Your task to perform on an android device: Open Wikipedia Image 0: 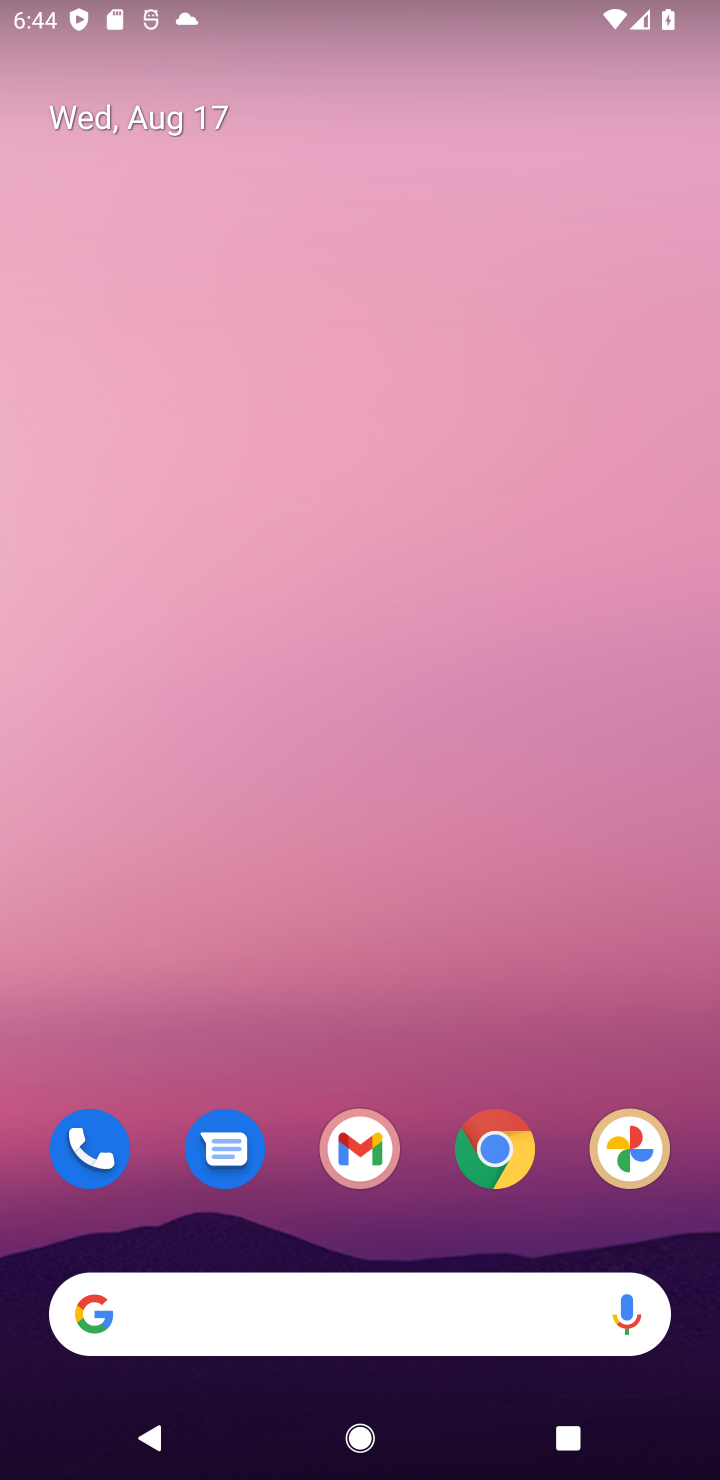
Step 0: click (497, 1153)
Your task to perform on an android device: Open Wikipedia Image 1: 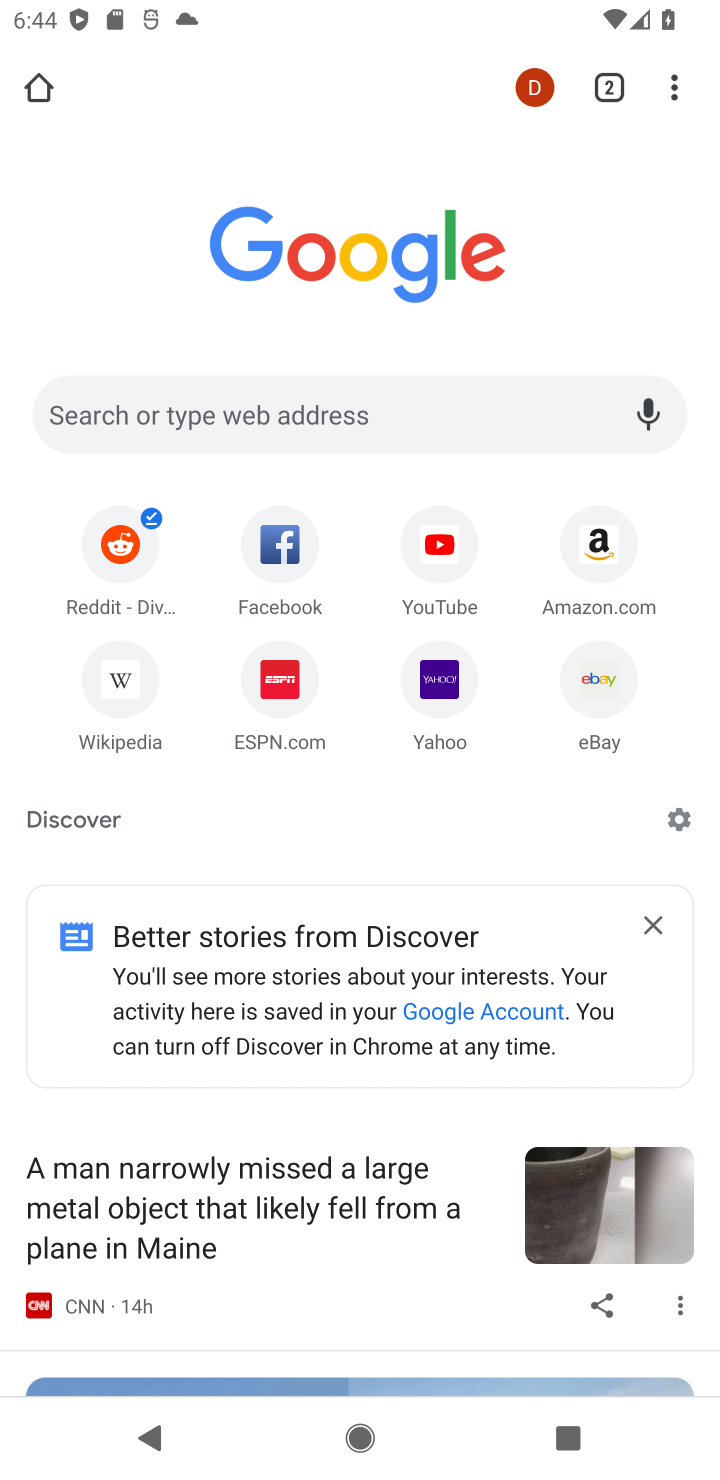
Step 1: click (118, 688)
Your task to perform on an android device: Open Wikipedia Image 2: 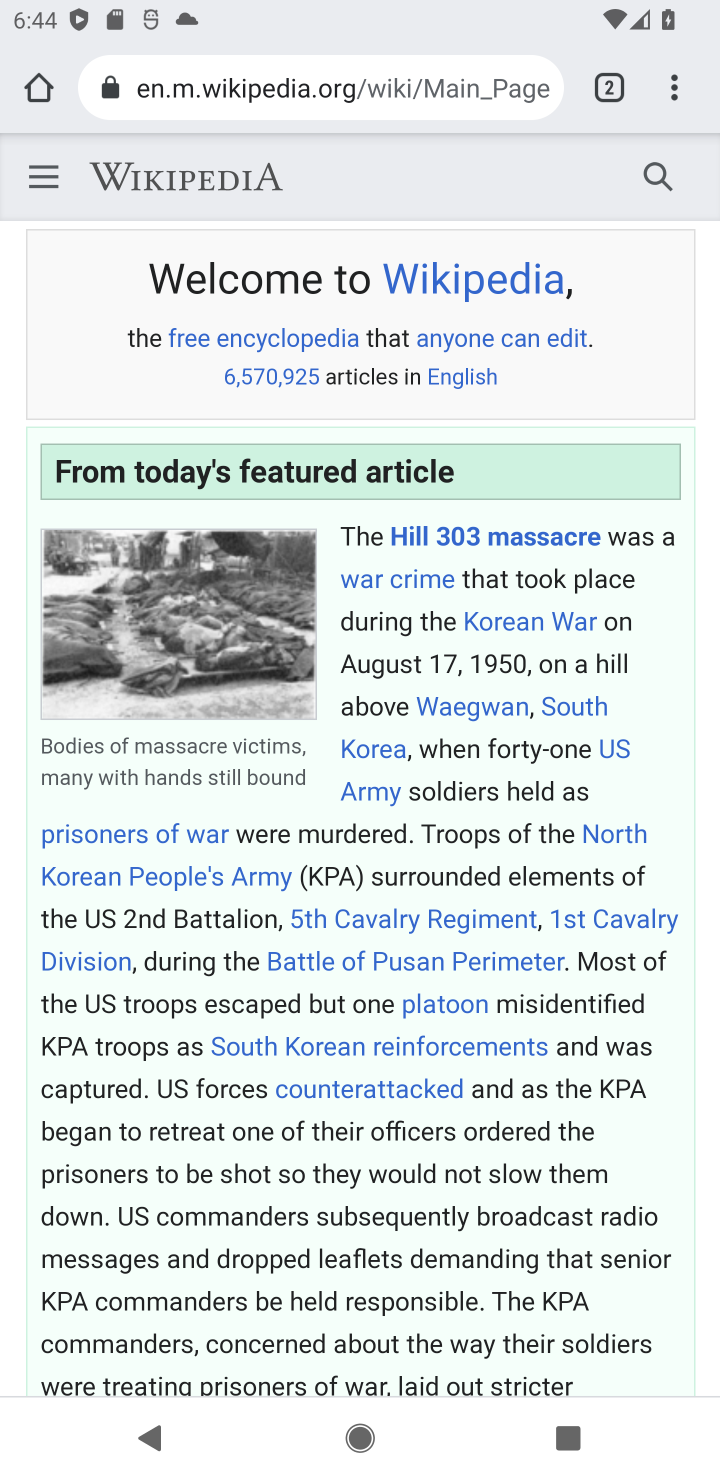
Step 2: task complete